Your task to perform on an android device: Clear the cart on costco.com. Search for logitech g910 on costco.com, select the first entry, and add it to the cart. Image 0: 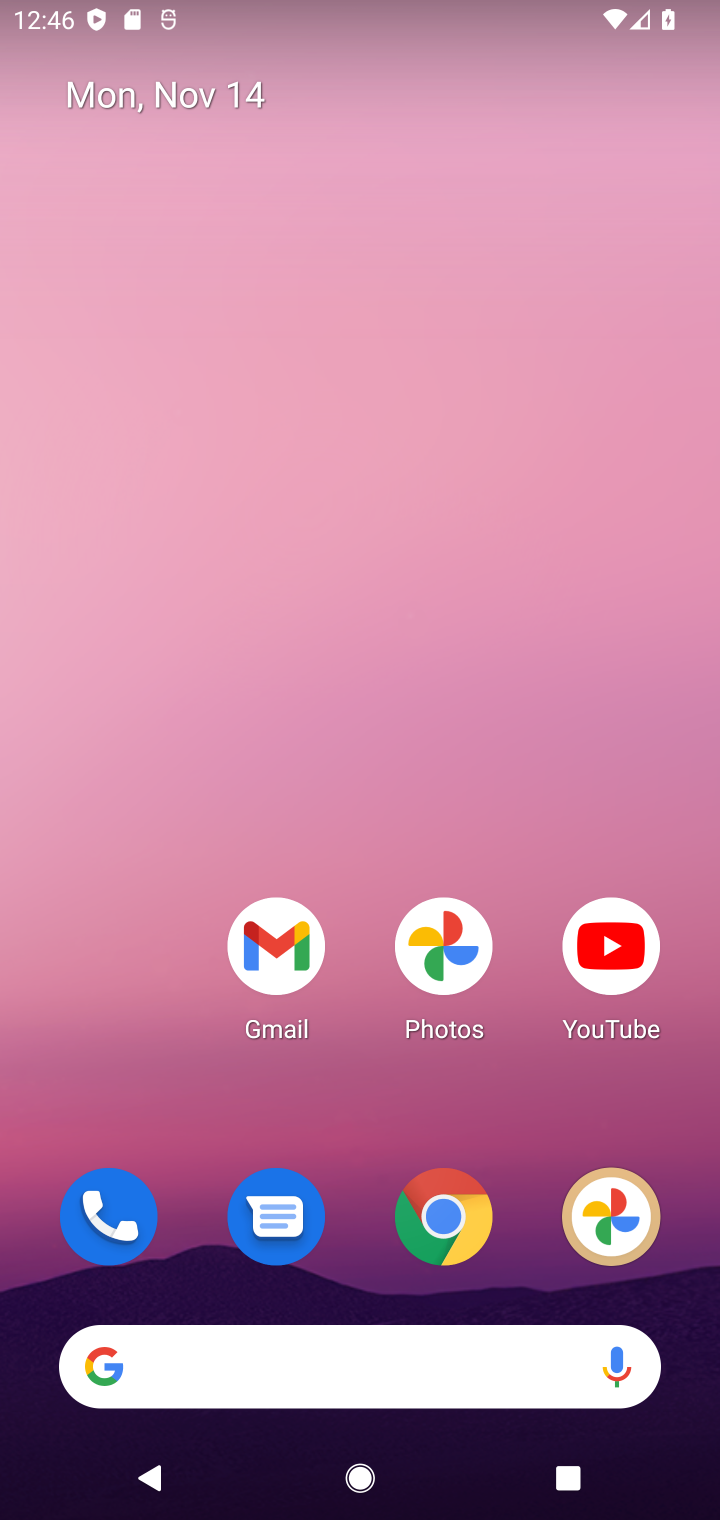
Step 0: click (454, 1254)
Your task to perform on an android device: Clear the cart on costco.com. Search for logitech g910 on costco.com, select the first entry, and add it to the cart. Image 1: 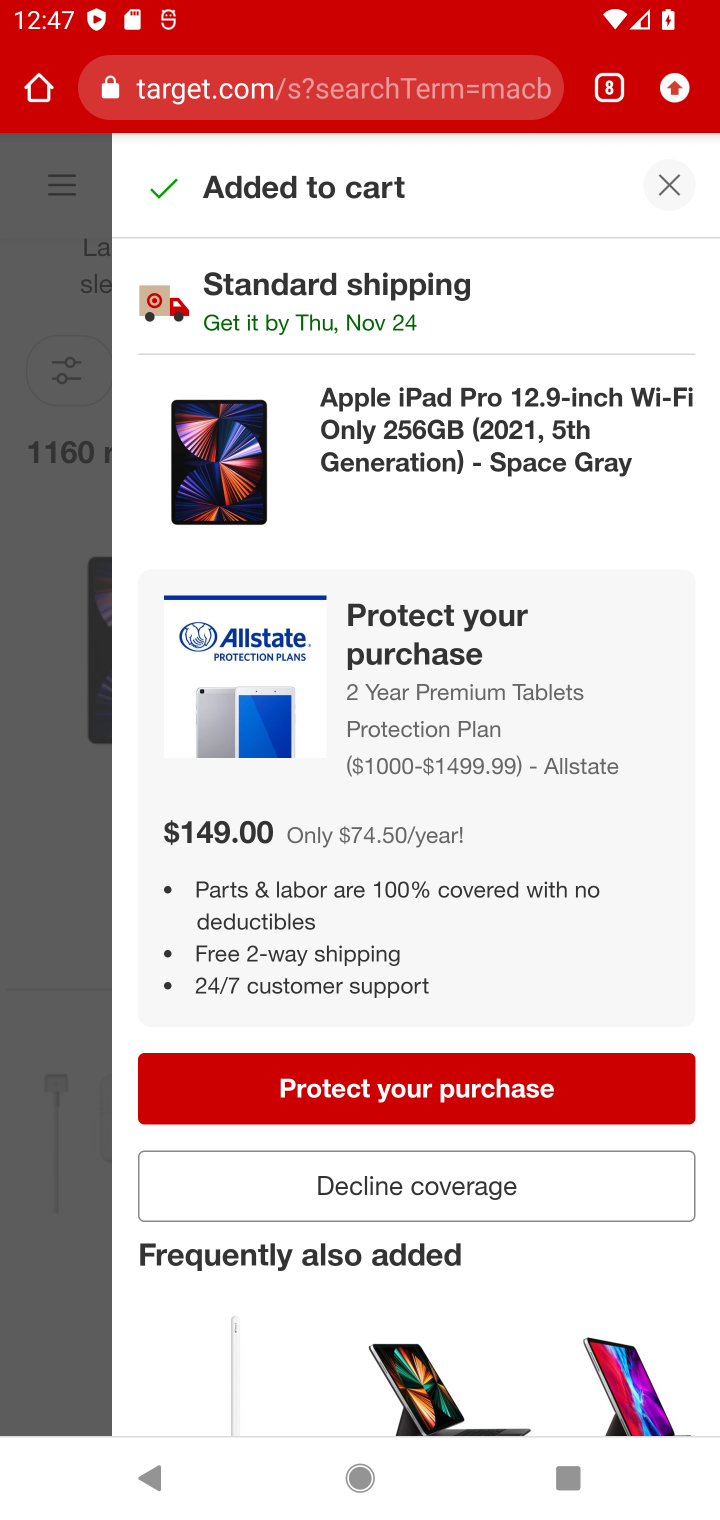
Step 1: click (620, 94)
Your task to perform on an android device: Clear the cart on costco.com. Search for logitech g910 on costco.com, select the first entry, and add it to the cart. Image 2: 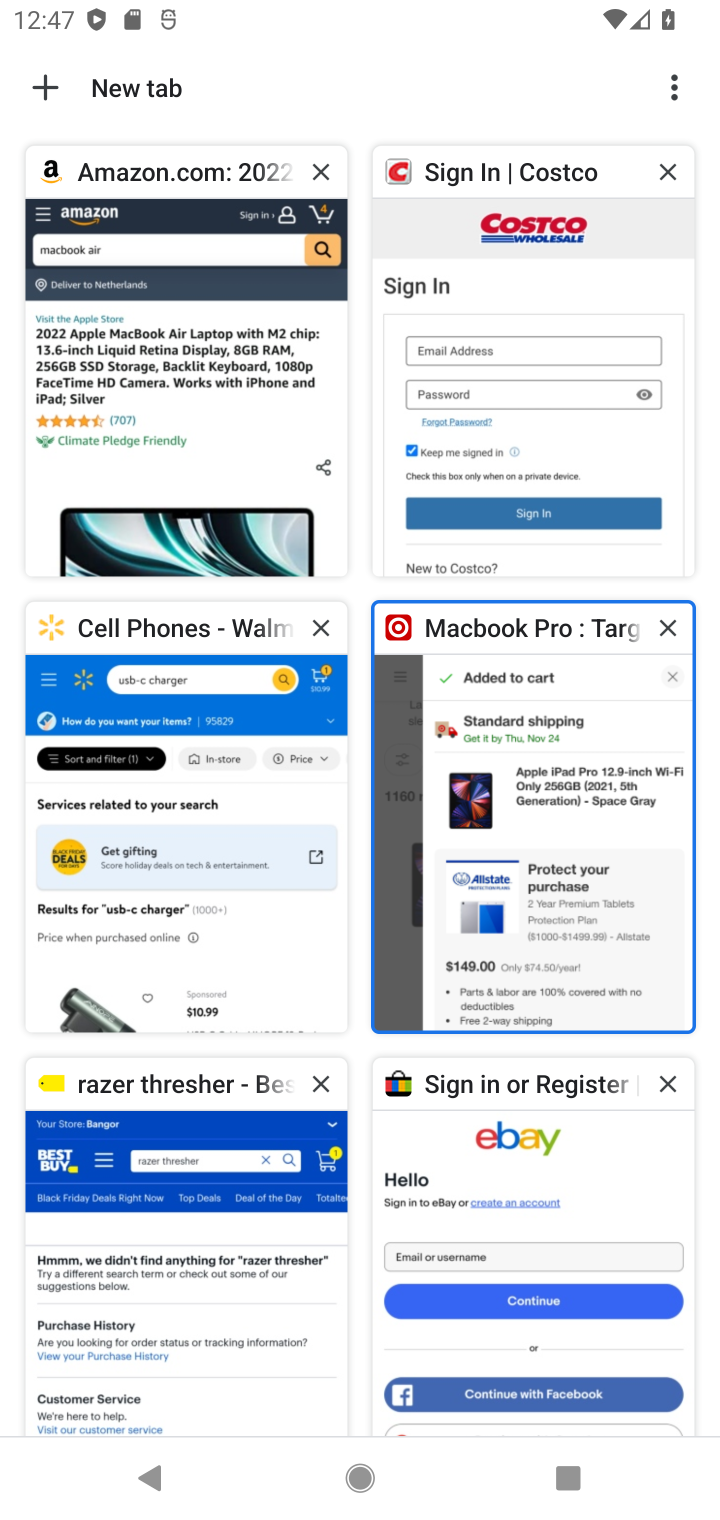
Step 2: click (536, 261)
Your task to perform on an android device: Clear the cart on costco.com. Search for logitech g910 on costco.com, select the first entry, and add it to the cart. Image 3: 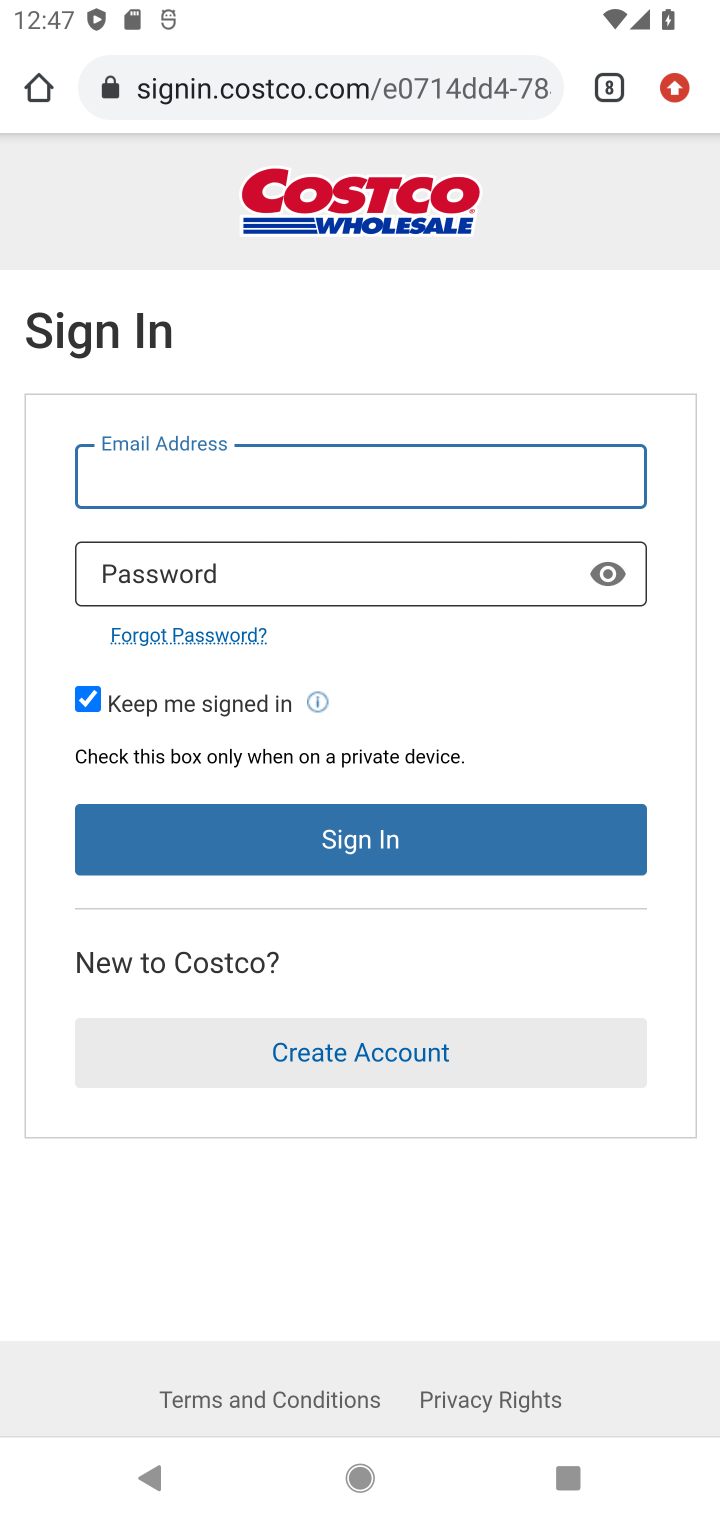
Step 3: press back button
Your task to perform on an android device: Clear the cart on costco.com. Search for logitech g910 on costco.com, select the first entry, and add it to the cart. Image 4: 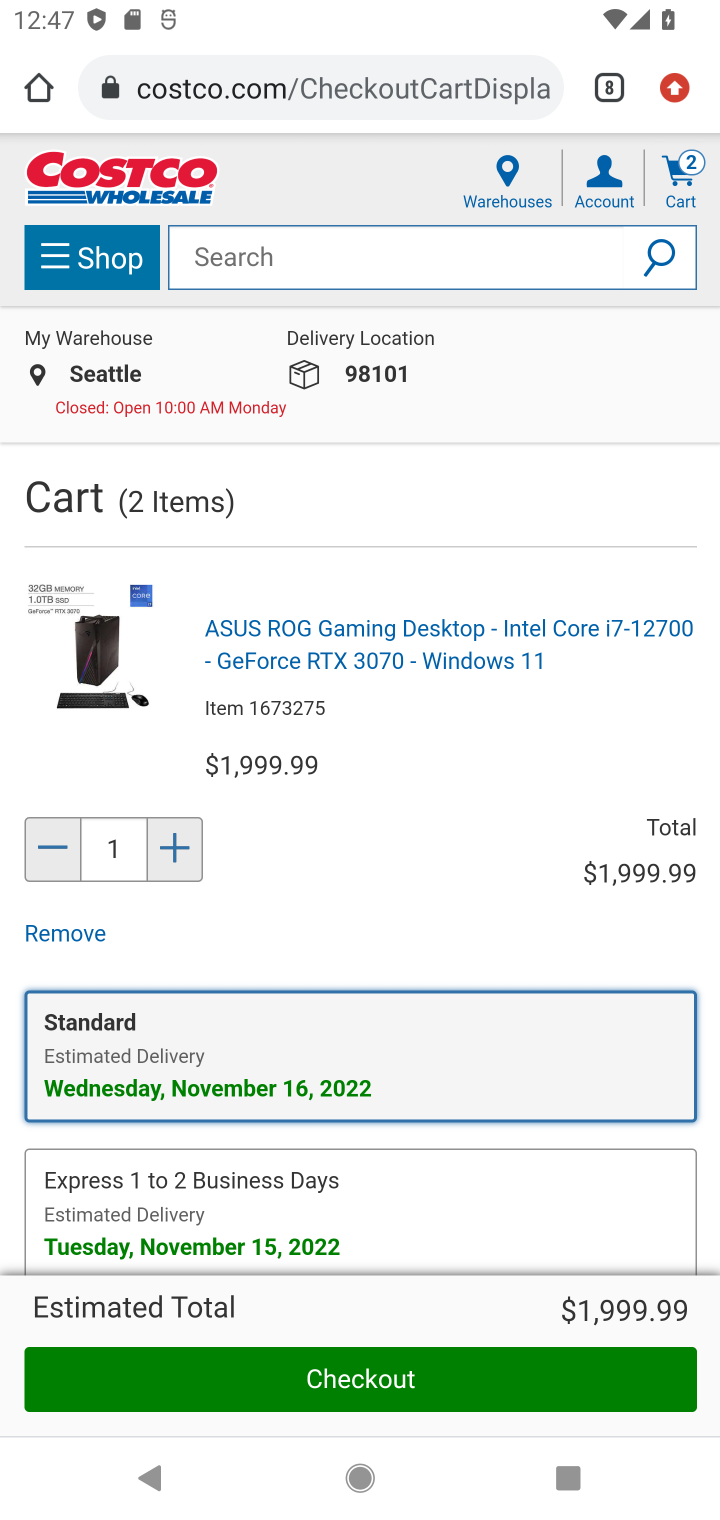
Step 4: click (83, 930)
Your task to perform on an android device: Clear the cart on costco.com. Search for logitech g910 on costco.com, select the first entry, and add it to the cart. Image 5: 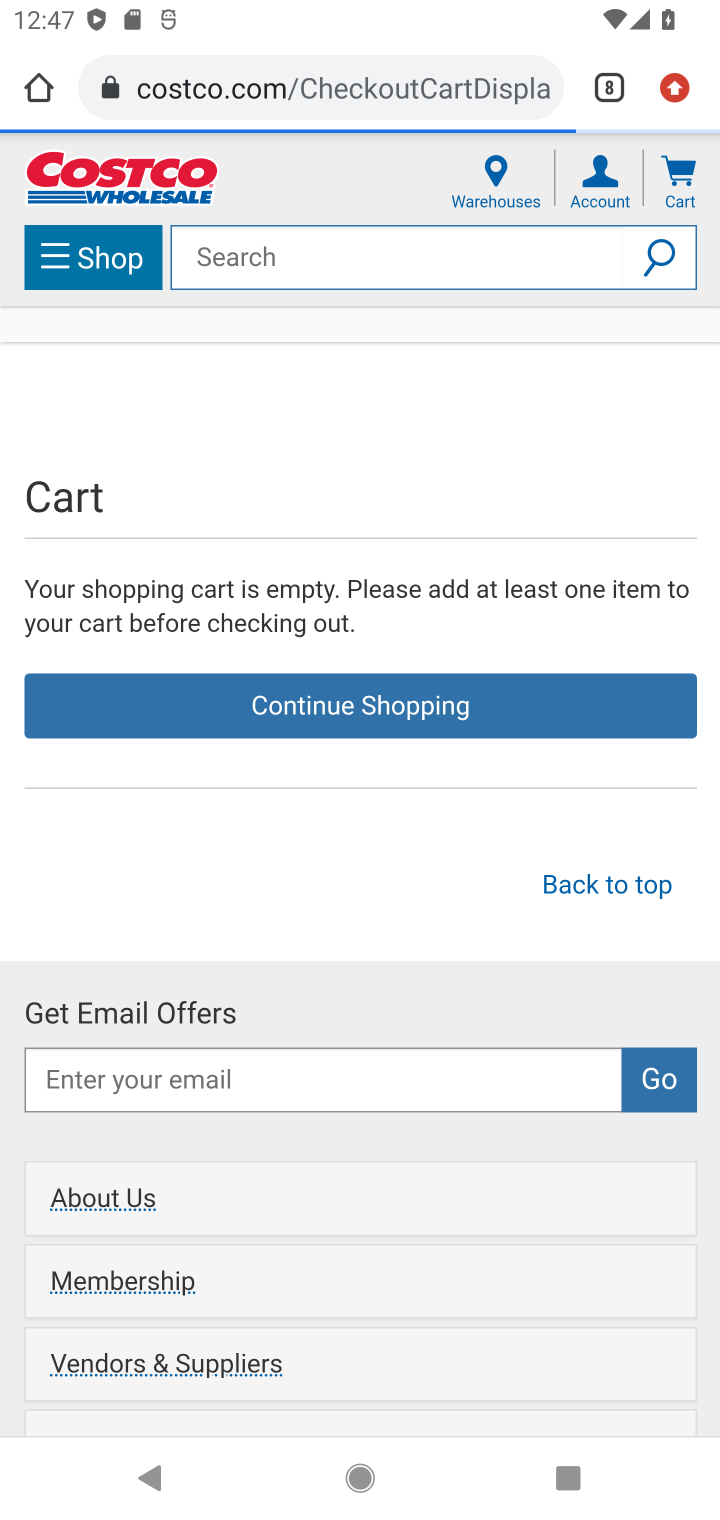
Step 5: click (319, 845)
Your task to perform on an android device: Clear the cart on costco.com. Search for logitech g910 on costco.com, select the first entry, and add it to the cart. Image 6: 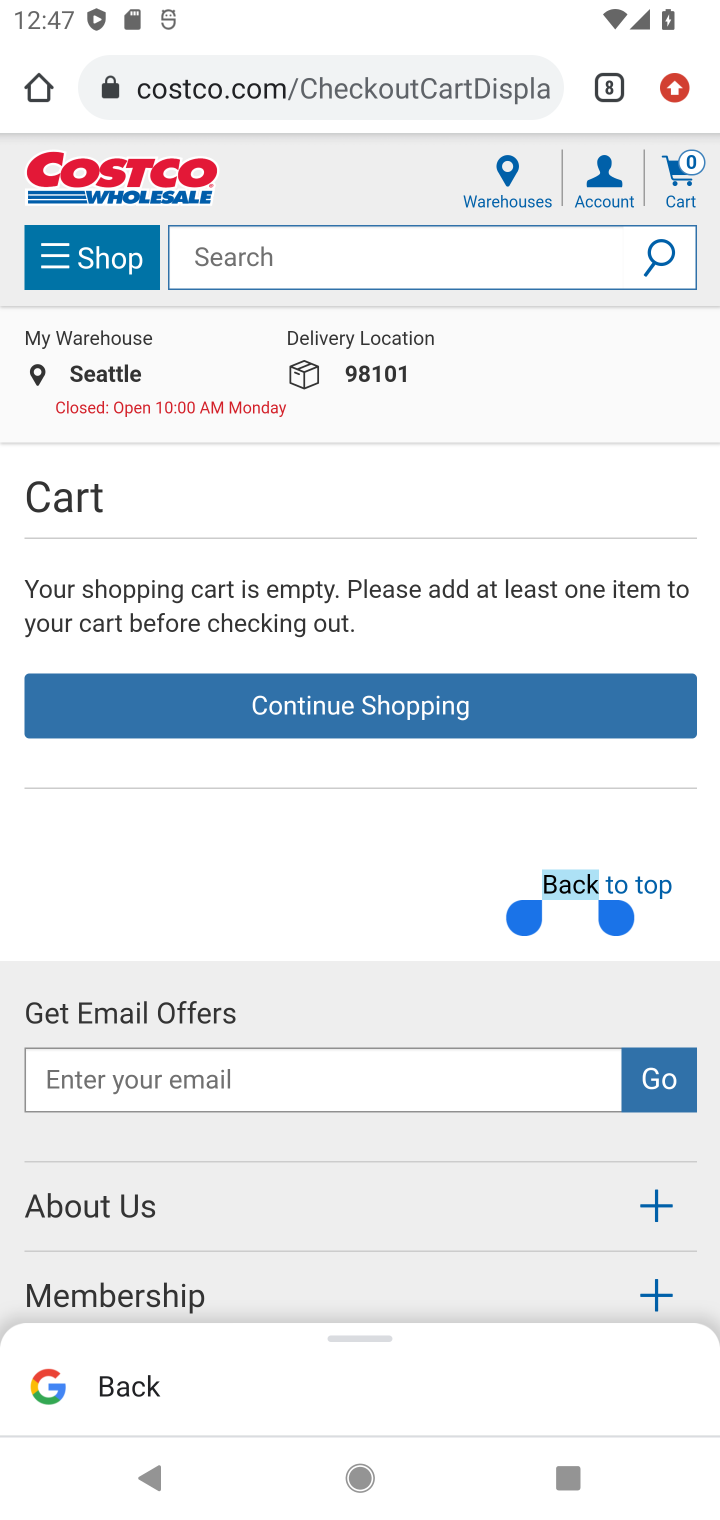
Step 6: click (443, 273)
Your task to perform on an android device: Clear the cart on costco.com. Search for logitech g910 on costco.com, select the first entry, and add it to the cart. Image 7: 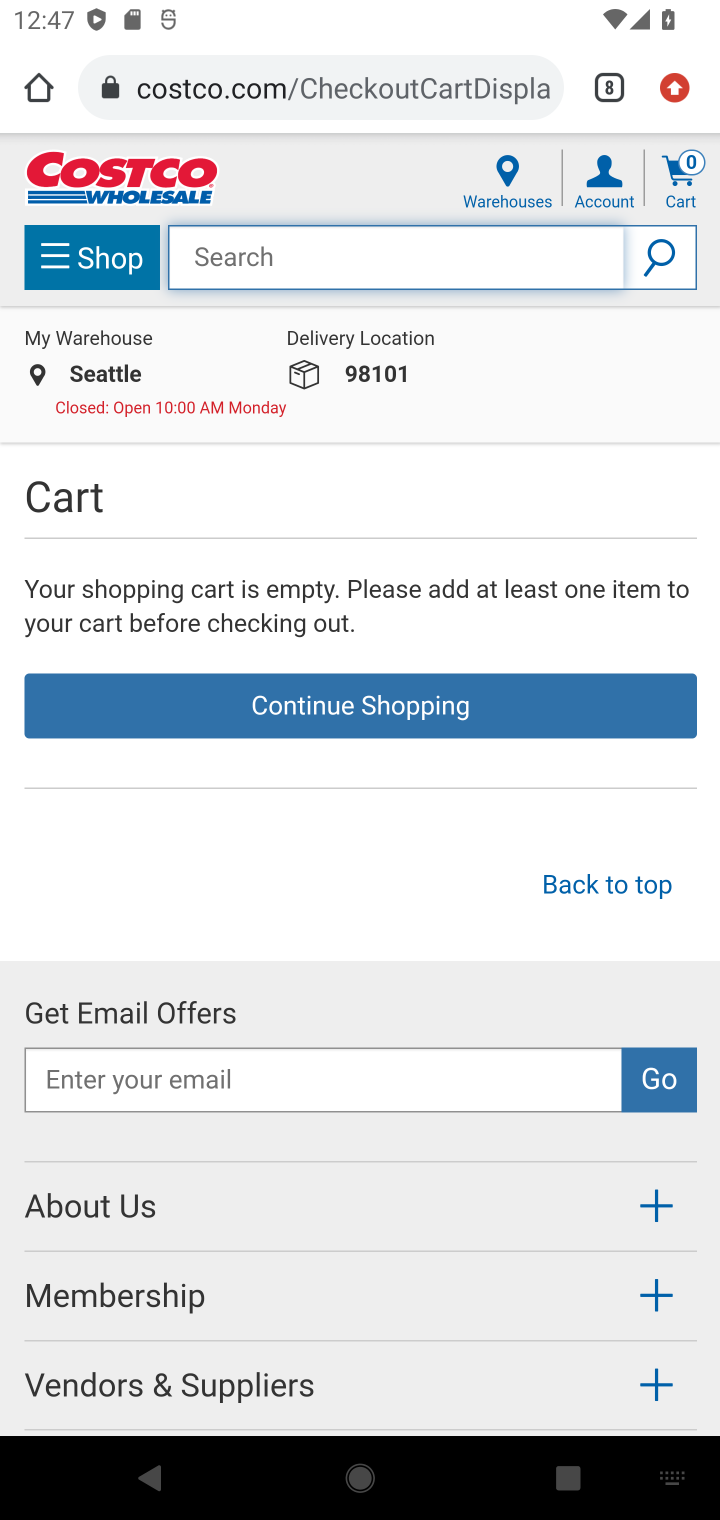
Step 7: type "logitech g910"
Your task to perform on an android device: Clear the cart on costco.com. Search for logitech g910 on costco.com, select the first entry, and add it to the cart. Image 8: 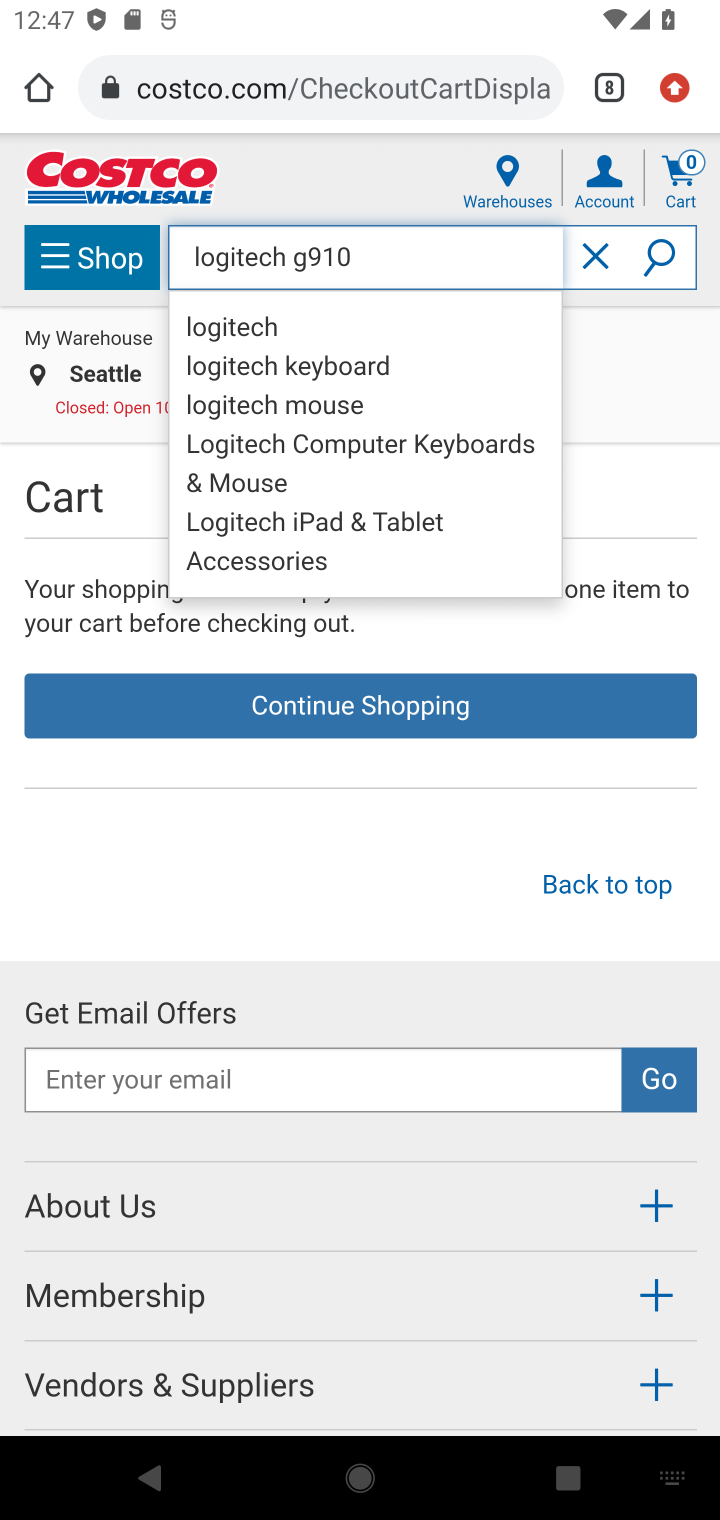
Step 8: click (234, 367)
Your task to perform on an android device: Clear the cart on costco.com. Search for logitech g910 on costco.com, select the first entry, and add it to the cart. Image 9: 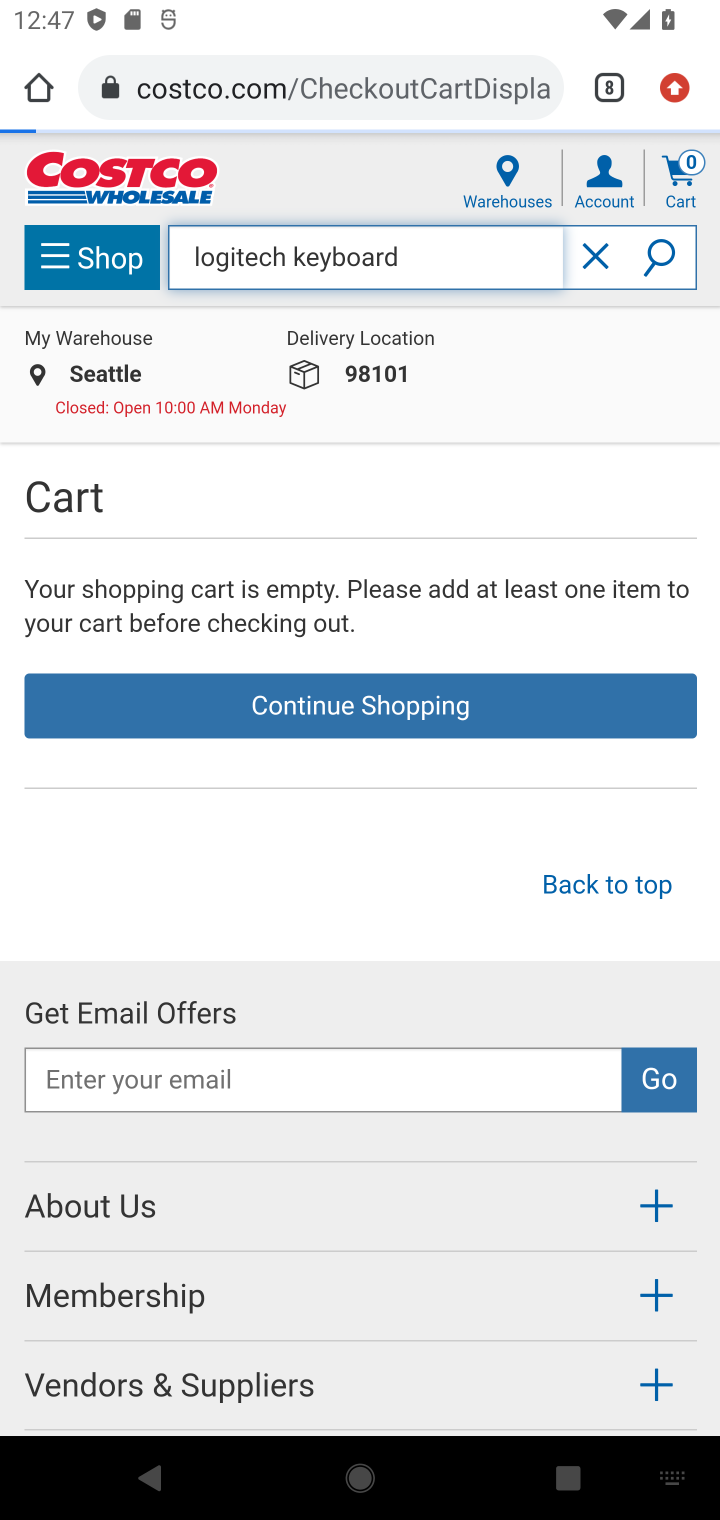
Step 9: click (670, 256)
Your task to perform on an android device: Clear the cart on costco.com. Search for logitech g910 on costco.com, select the first entry, and add it to the cart. Image 10: 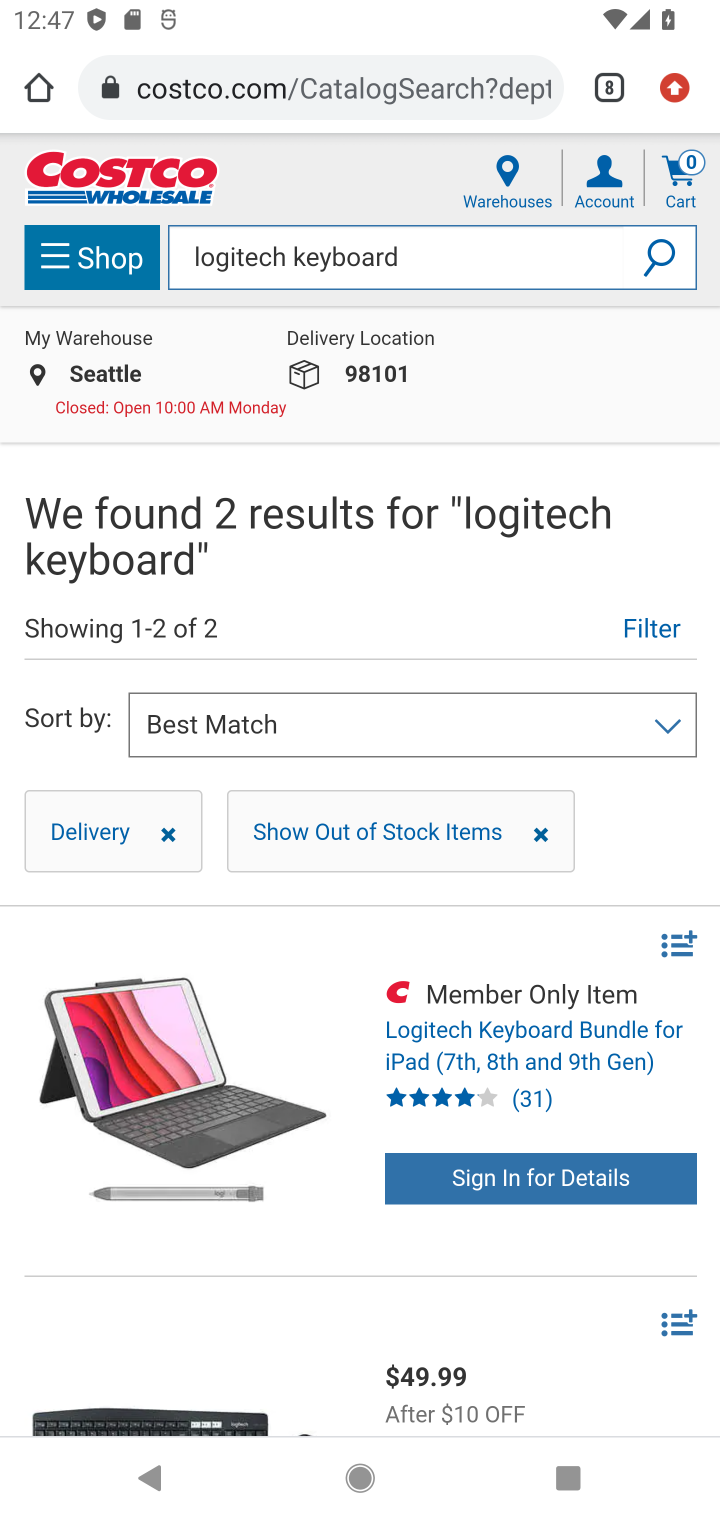
Step 10: task complete